Your task to perform on an android device: clear all cookies in the chrome app Image 0: 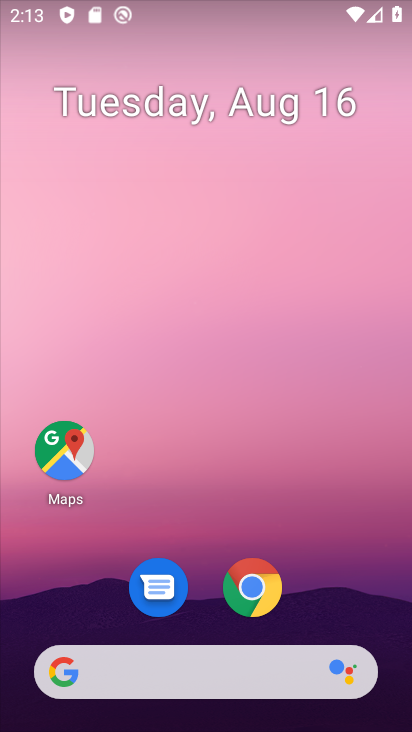
Step 0: drag from (189, 635) to (177, 229)
Your task to perform on an android device: clear all cookies in the chrome app Image 1: 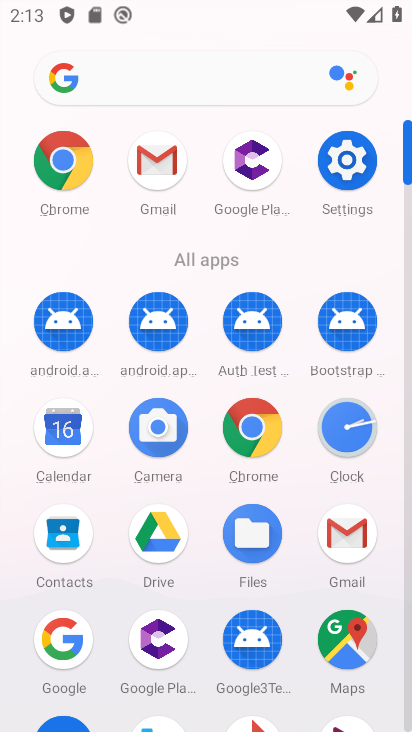
Step 1: click (247, 414)
Your task to perform on an android device: clear all cookies in the chrome app Image 2: 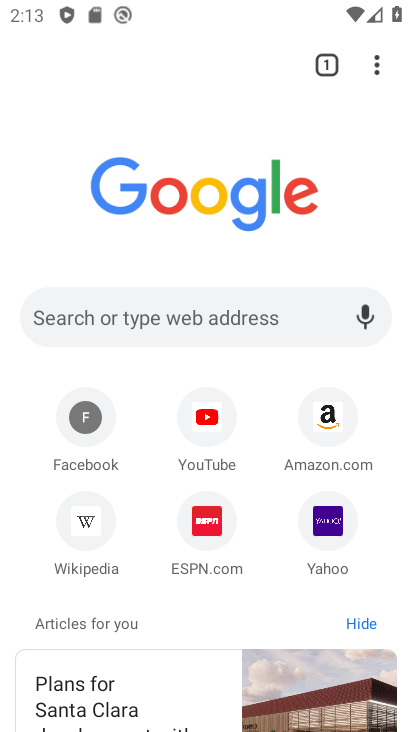
Step 2: click (383, 60)
Your task to perform on an android device: clear all cookies in the chrome app Image 3: 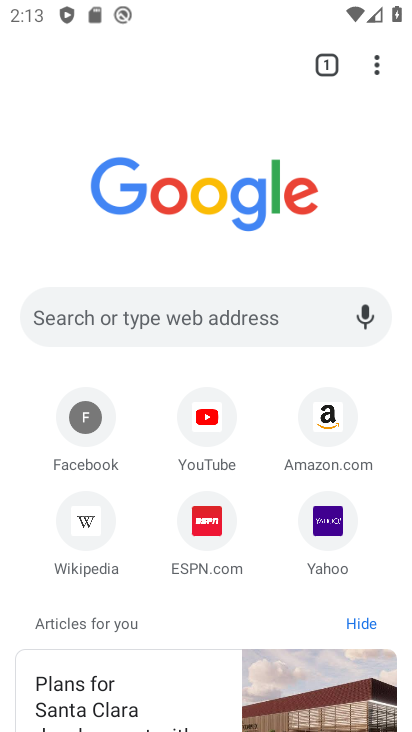
Step 3: click (381, 62)
Your task to perform on an android device: clear all cookies in the chrome app Image 4: 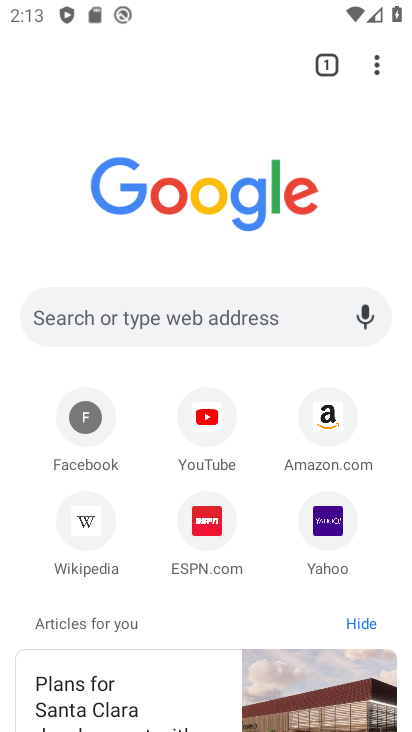
Step 4: click (372, 74)
Your task to perform on an android device: clear all cookies in the chrome app Image 5: 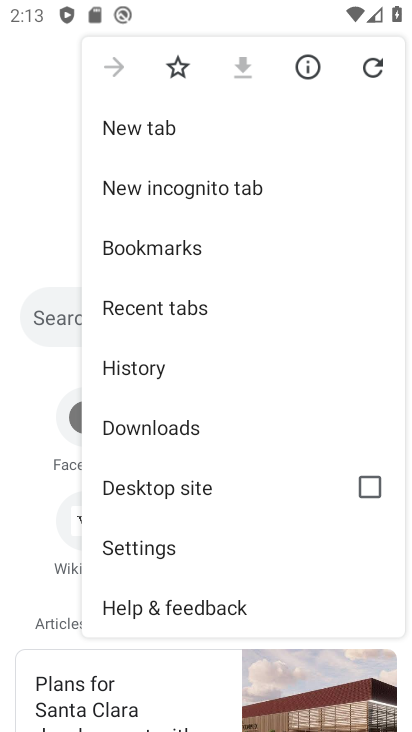
Step 5: click (141, 552)
Your task to perform on an android device: clear all cookies in the chrome app Image 6: 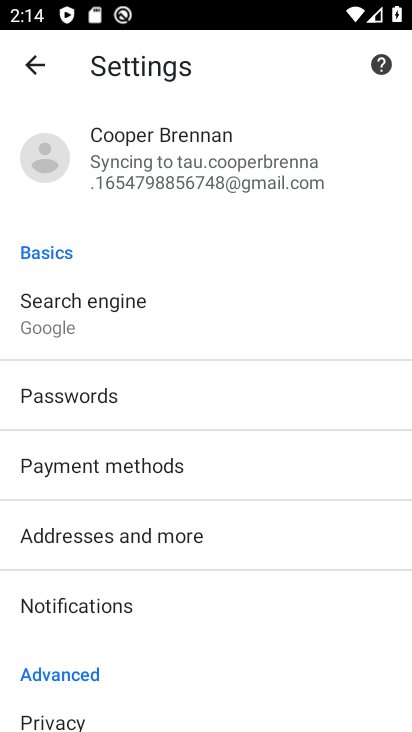
Step 6: drag from (152, 668) to (209, 227)
Your task to perform on an android device: clear all cookies in the chrome app Image 7: 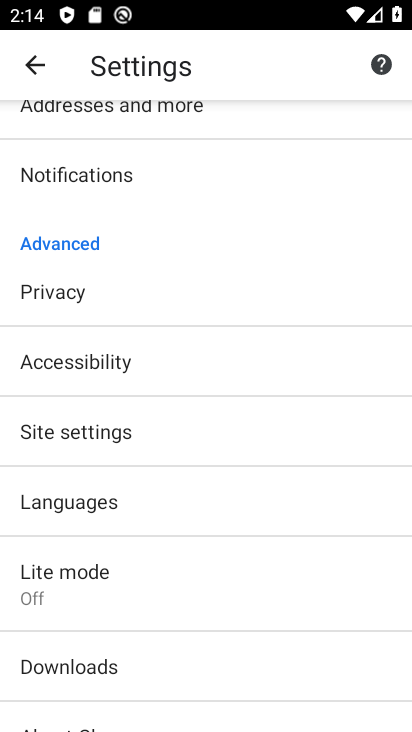
Step 7: click (72, 287)
Your task to perform on an android device: clear all cookies in the chrome app Image 8: 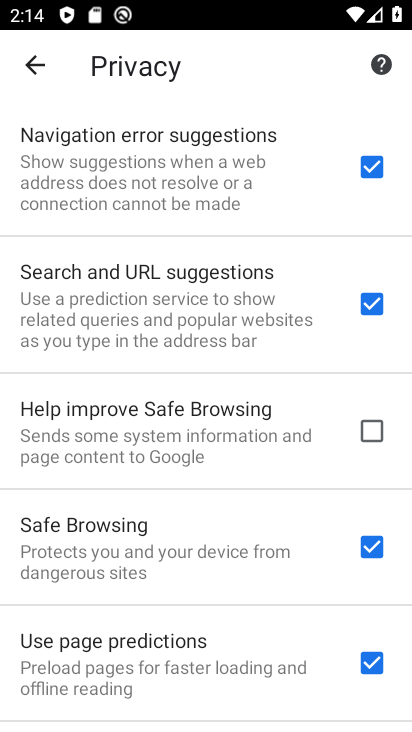
Step 8: drag from (151, 186) to (172, 720)
Your task to perform on an android device: clear all cookies in the chrome app Image 9: 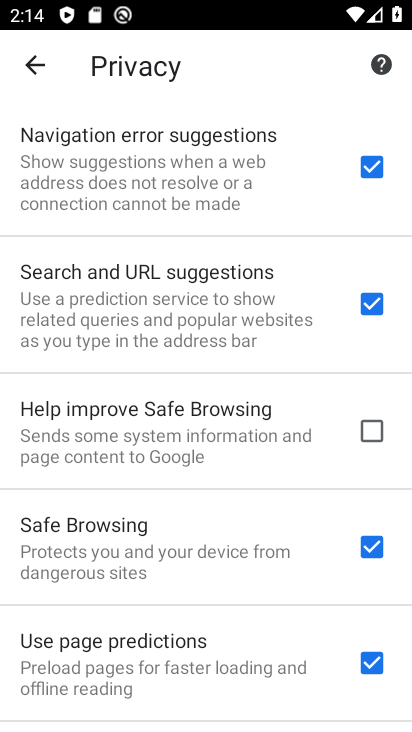
Step 9: drag from (170, 145) to (167, 539)
Your task to perform on an android device: clear all cookies in the chrome app Image 10: 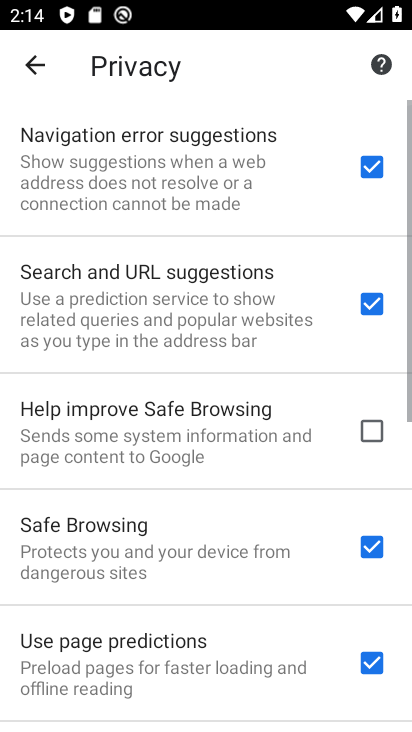
Step 10: drag from (135, 621) to (207, 96)
Your task to perform on an android device: clear all cookies in the chrome app Image 11: 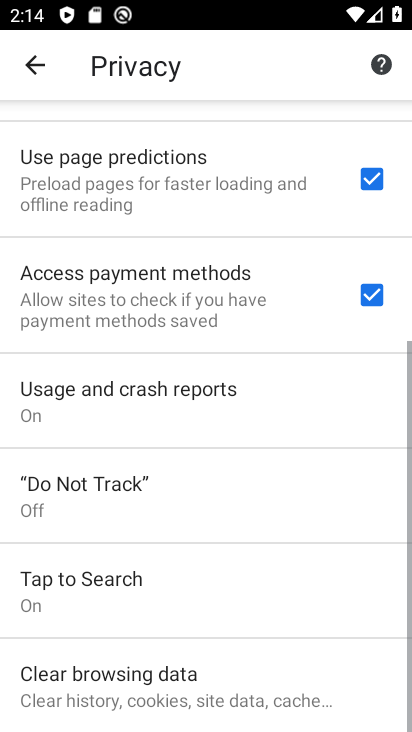
Step 11: click (129, 689)
Your task to perform on an android device: clear all cookies in the chrome app Image 12: 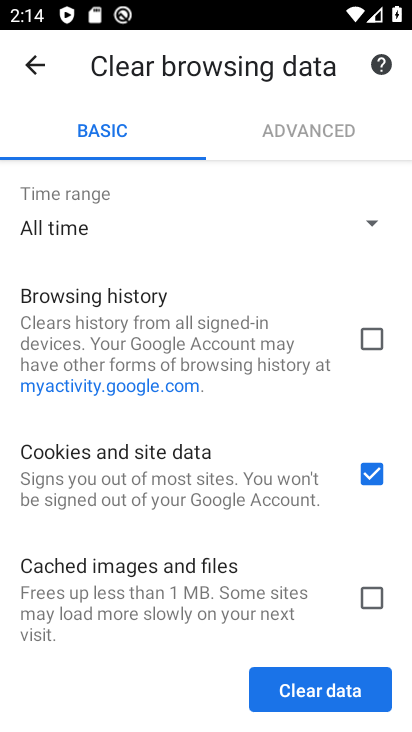
Step 12: click (368, 344)
Your task to perform on an android device: clear all cookies in the chrome app Image 13: 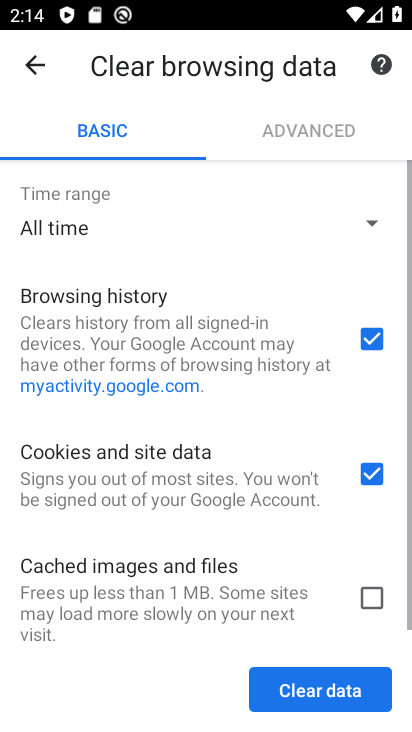
Step 13: click (369, 593)
Your task to perform on an android device: clear all cookies in the chrome app Image 14: 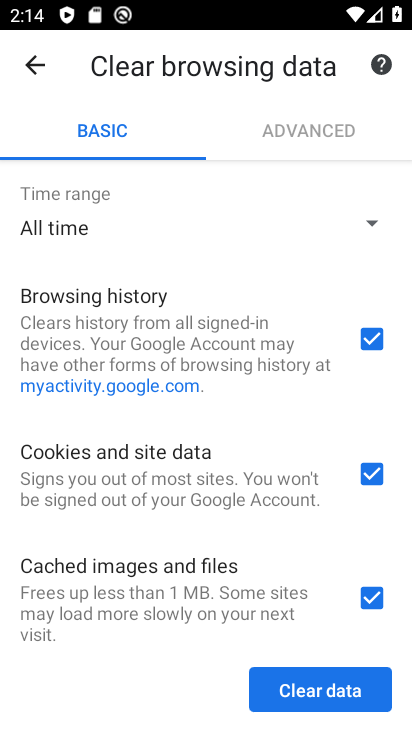
Step 14: click (318, 687)
Your task to perform on an android device: clear all cookies in the chrome app Image 15: 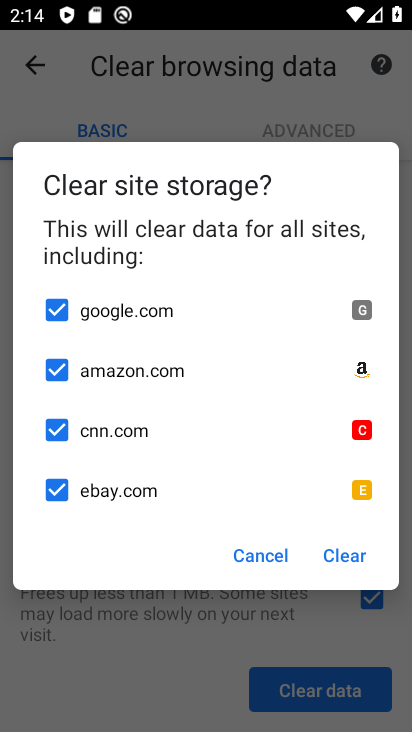
Step 15: click (323, 562)
Your task to perform on an android device: clear all cookies in the chrome app Image 16: 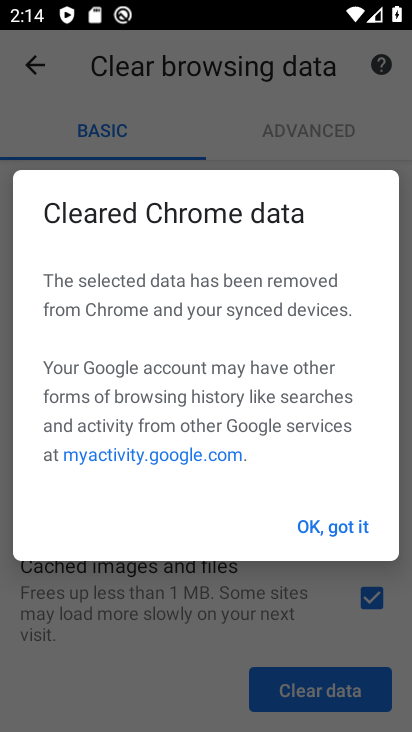
Step 16: click (328, 536)
Your task to perform on an android device: clear all cookies in the chrome app Image 17: 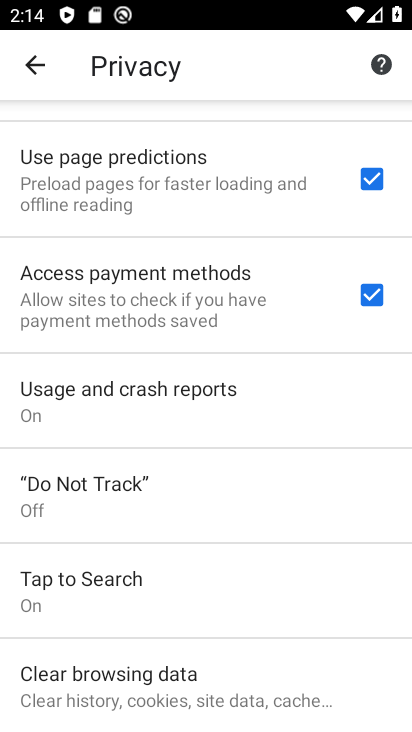
Step 17: task complete